Your task to perform on an android device: turn off priority inbox in the gmail app Image 0: 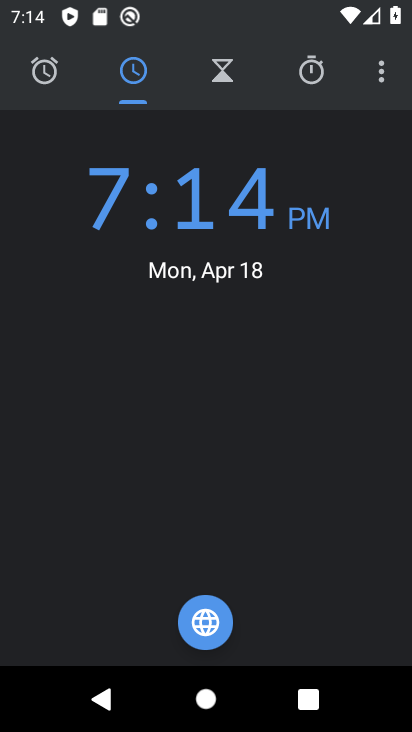
Step 0: press home button
Your task to perform on an android device: turn off priority inbox in the gmail app Image 1: 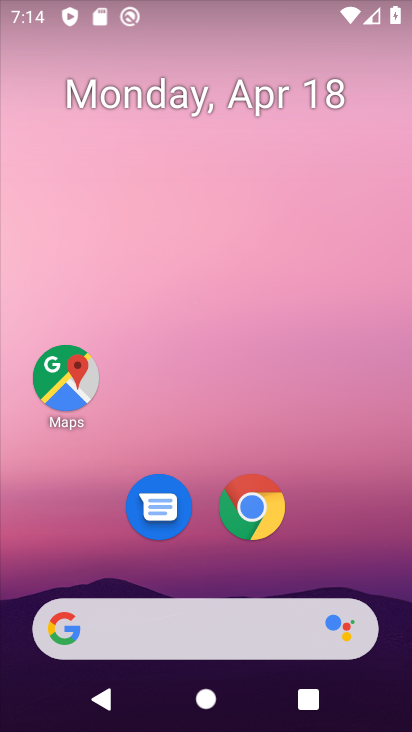
Step 1: drag from (0, 535) to (252, 127)
Your task to perform on an android device: turn off priority inbox in the gmail app Image 2: 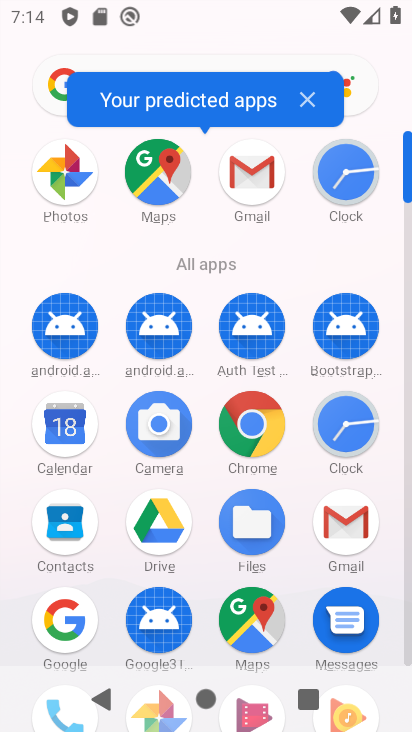
Step 2: click (347, 537)
Your task to perform on an android device: turn off priority inbox in the gmail app Image 3: 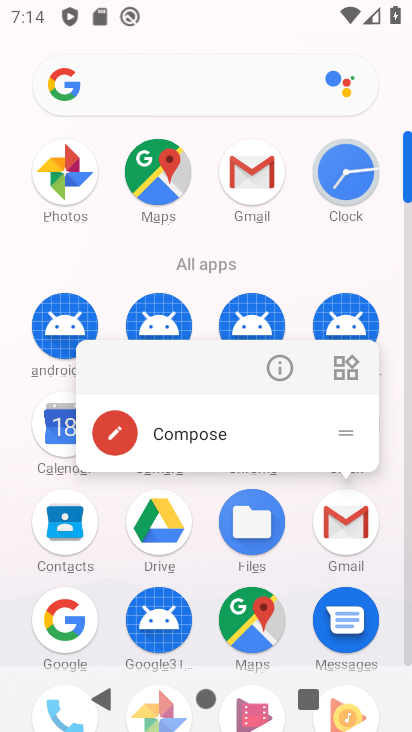
Step 3: click (347, 536)
Your task to perform on an android device: turn off priority inbox in the gmail app Image 4: 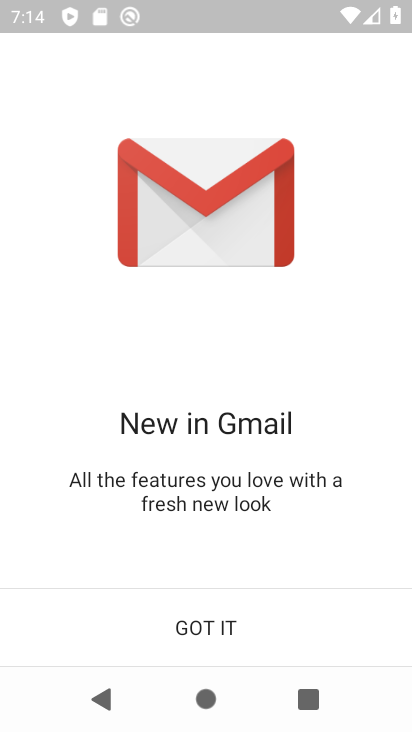
Step 4: click (214, 651)
Your task to perform on an android device: turn off priority inbox in the gmail app Image 5: 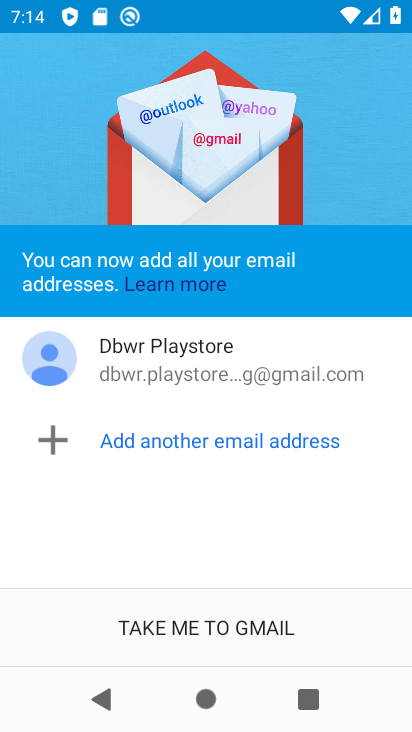
Step 5: click (214, 651)
Your task to perform on an android device: turn off priority inbox in the gmail app Image 6: 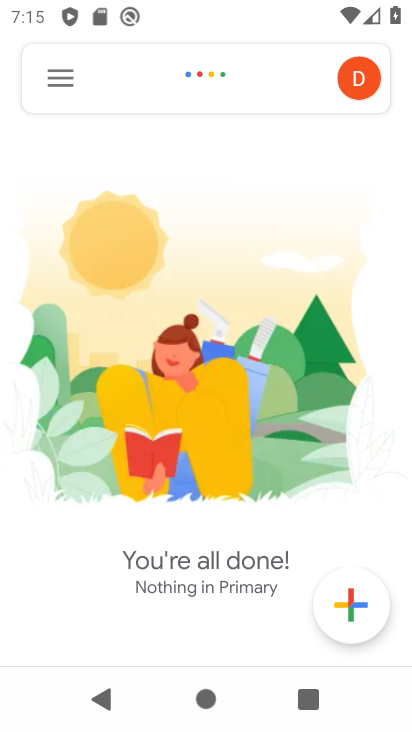
Step 6: click (51, 73)
Your task to perform on an android device: turn off priority inbox in the gmail app Image 7: 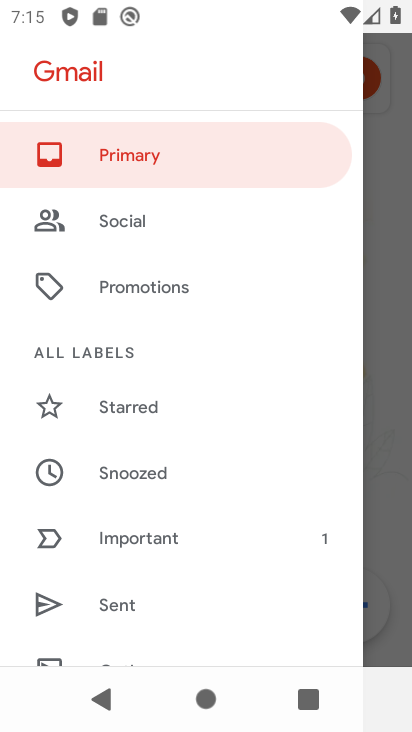
Step 7: drag from (197, 577) to (197, 118)
Your task to perform on an android device: turn off priority inbox in the gmail app Image 8: 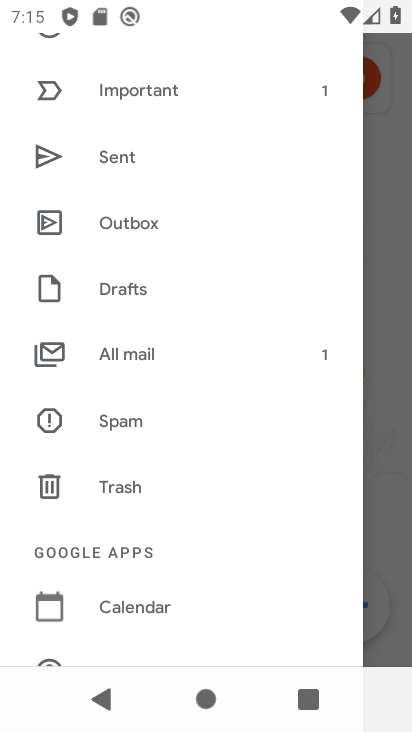
Step 8: drag from (103, 571) to (156, 193)
Your task to perform on an android device: turn off priority inbox in the gmail app Image 9: 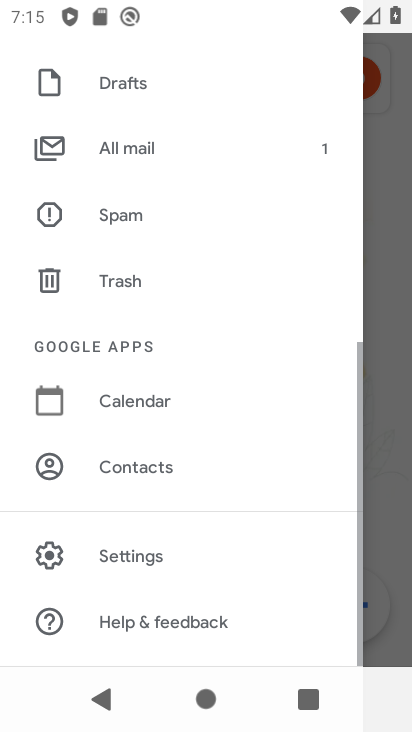
Step 9: click (149, 539)
Your task to perform on an android device: turn off priority inbox in the gmail app Image 10: 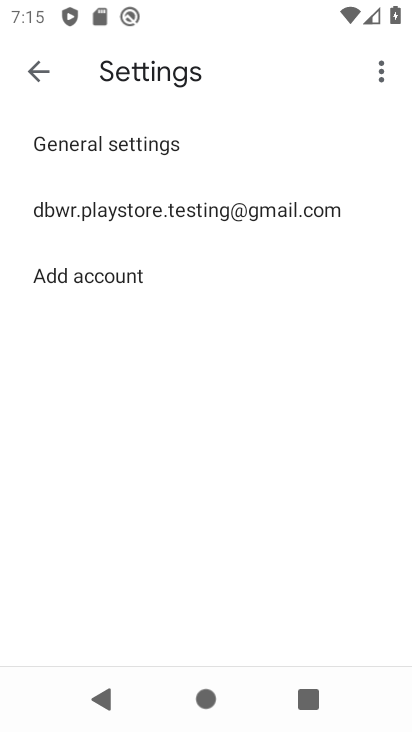
Step 10: click (149, 204)
Your task to perform on an android device: turn off priority inbox in the gmail app Image 11: 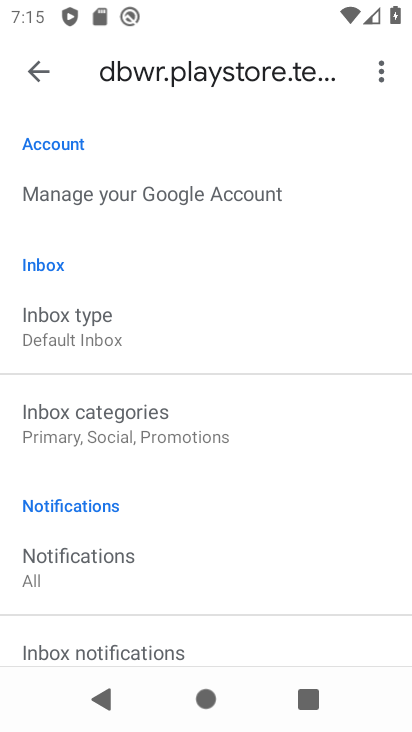
Step 11: click (163, 337)
Your task to perform on an android device: turn off priority inbox in the gmail app Image 12: 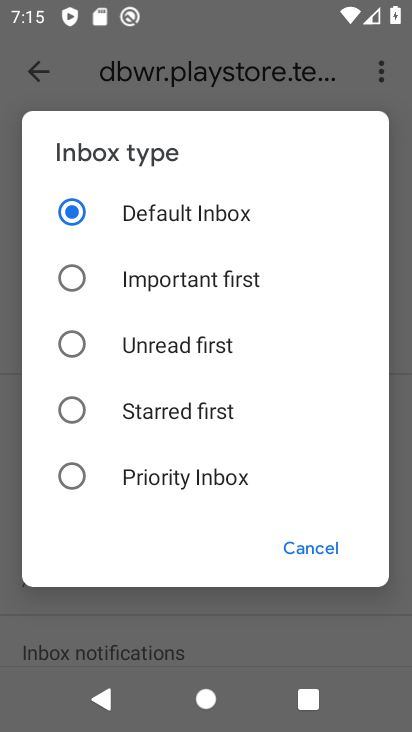
Step 12: click (116, 425)
Your task to perform on an android device: turn off priority inbox in the gmail app Image 13: 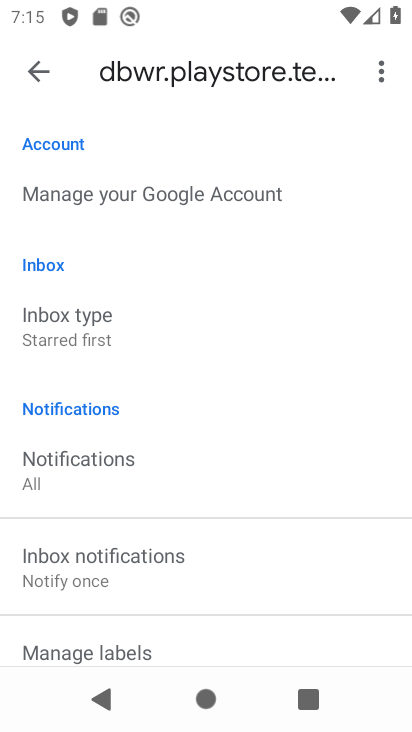
Step 13: task complete